Your task to perform on an android device: Search for razer blade on newegg.com, select the first entry, add it to the cart, then select checkout. Image 0: 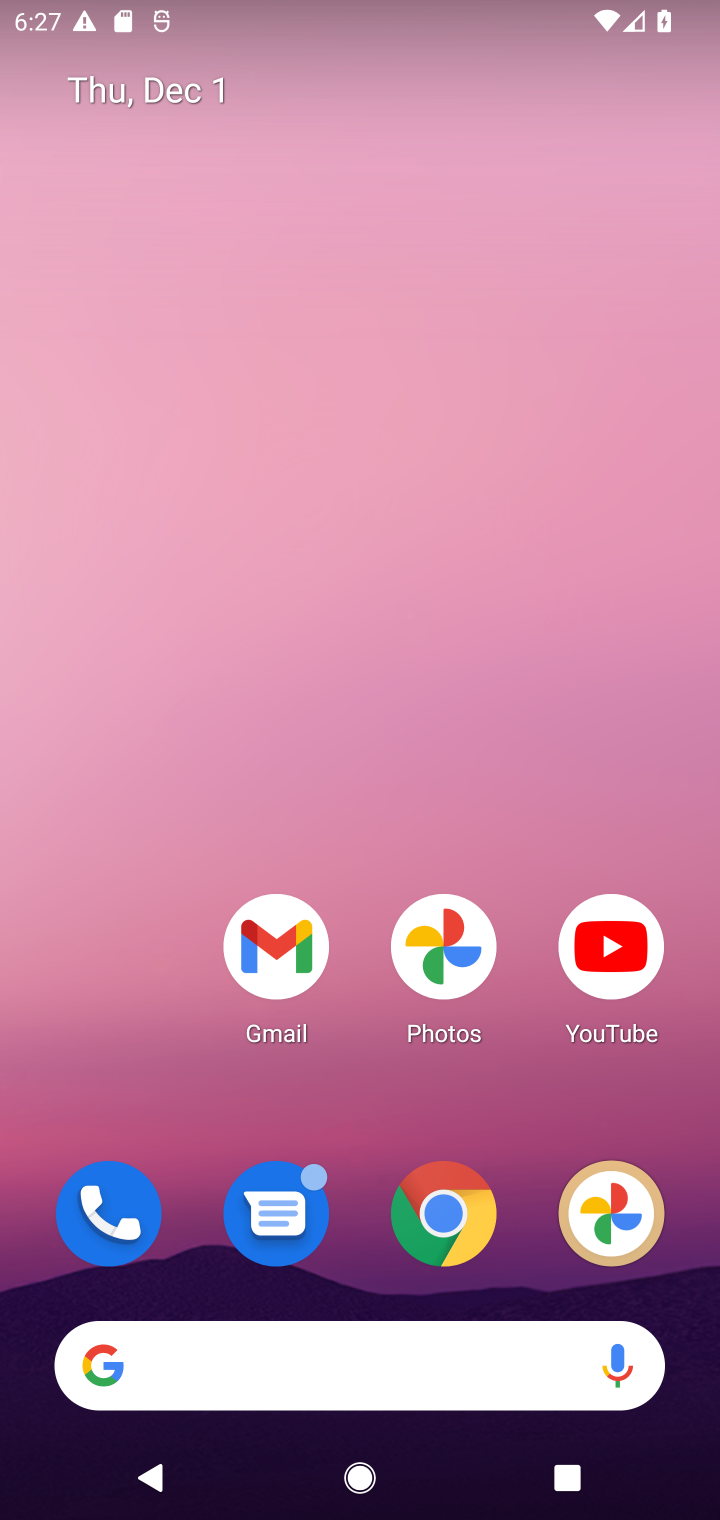
Step 0: click (429, 1347)
Your task to perform on an android device: Search for razer blade on newegg.com, select the first entry, add it to the cart, then select checkout. Image 1: 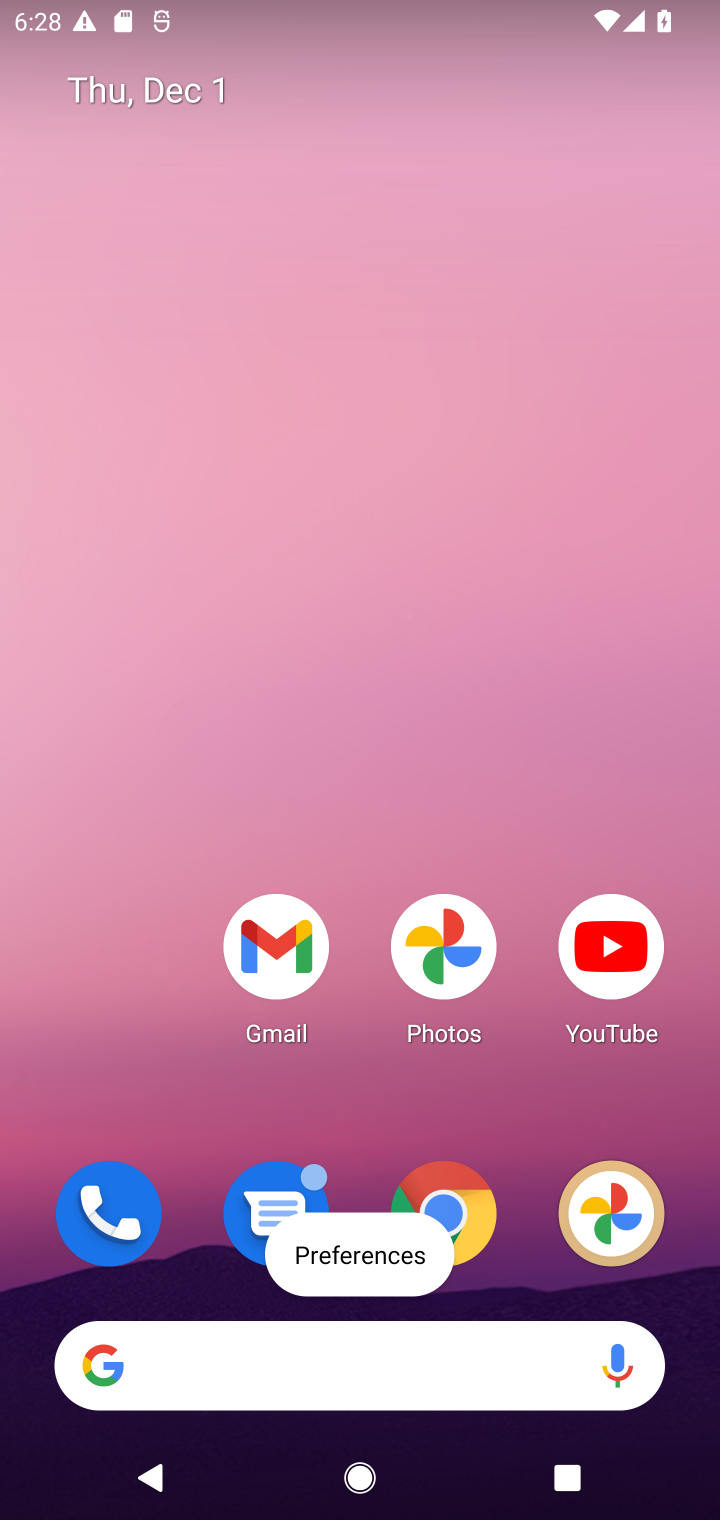
Step 1: click (380, 1341)
Your task to perform on an android device: Search for razer blade on newegg.com, select the first entry, add it to the cart, then select checkout. Image 2: 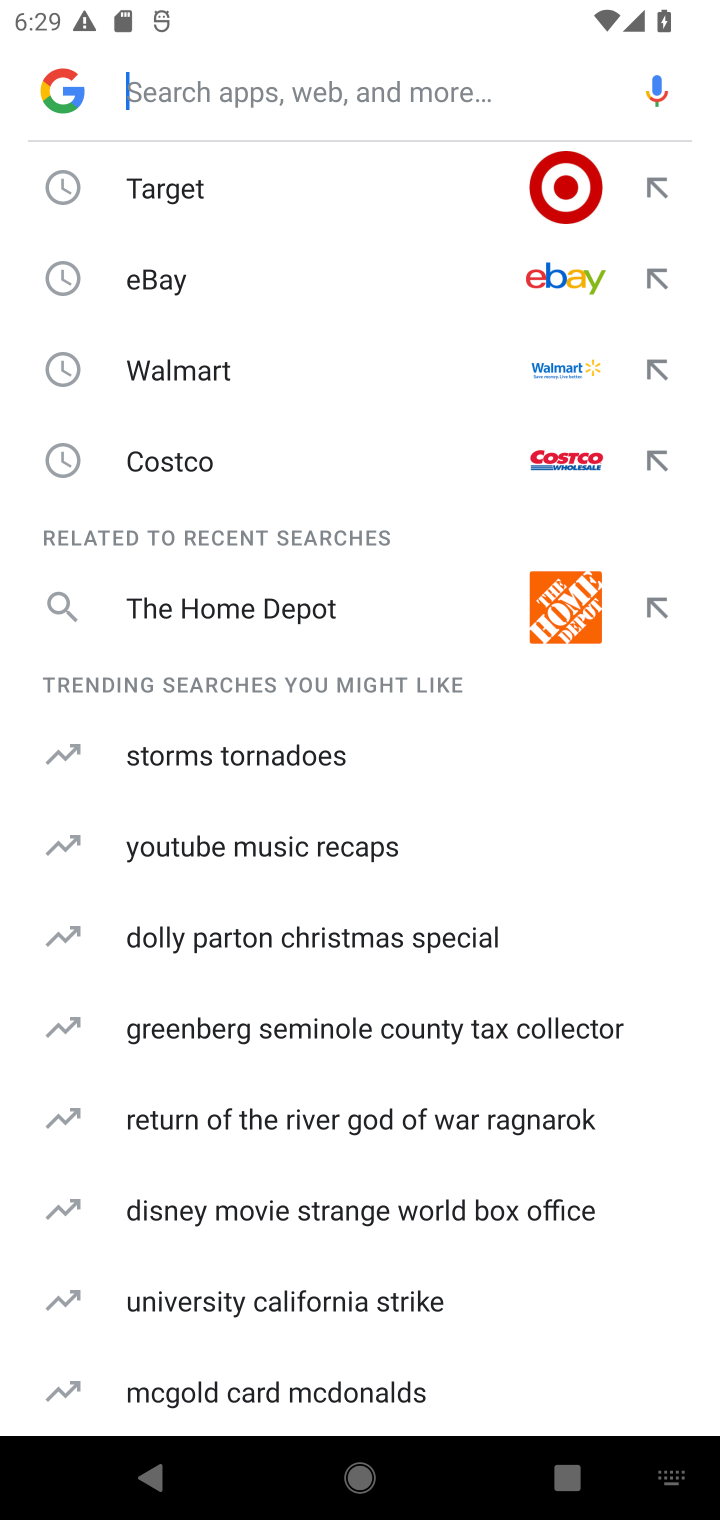
Step 2: type "newegg"
Your task to perform on an android device: Search for razer blade on newegg.com, select the first entry, add it to the cart, then select checkout. Image 3: 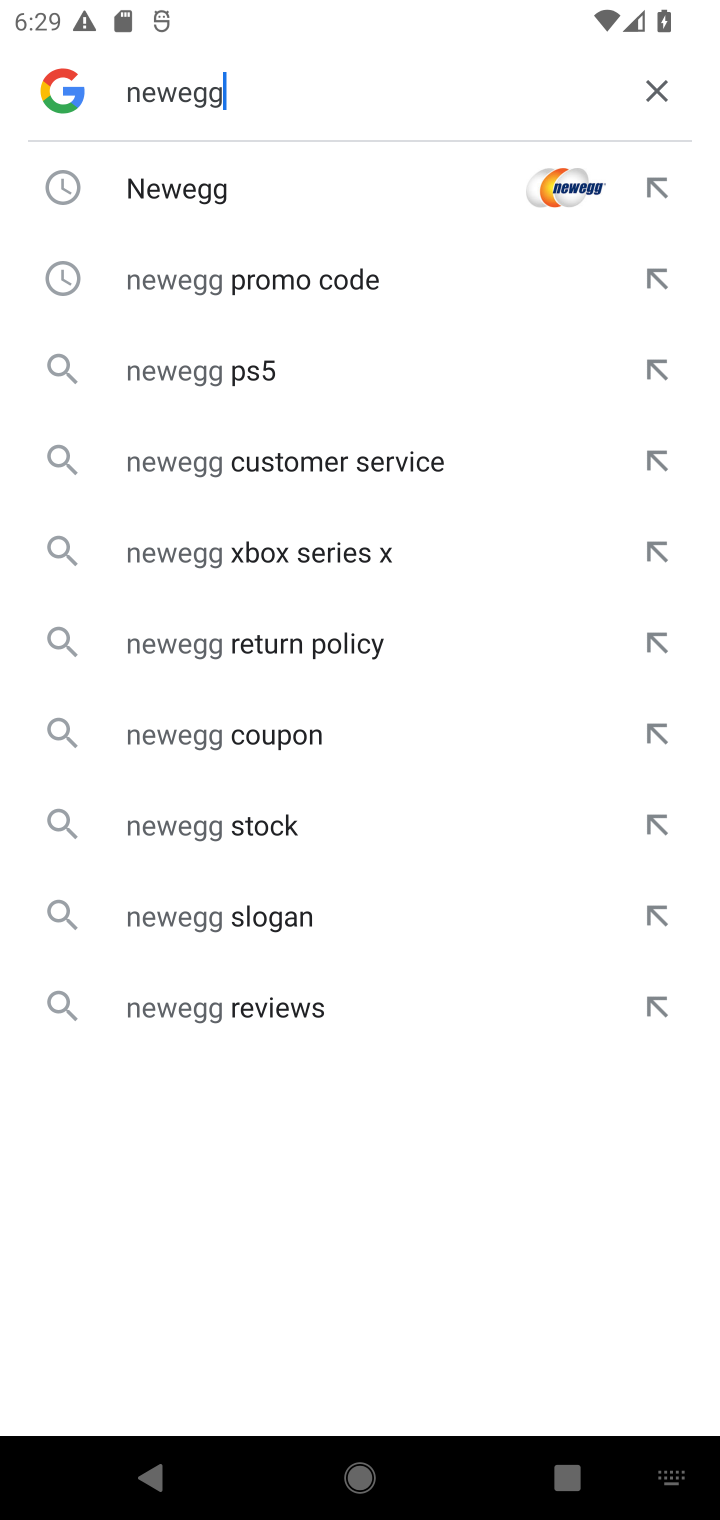
Step 3: click (285, 184)
Your task to perform on an android device: Search for razer blade on newegg.com, select the first entry, add it to the cart, then select checkout. Image 4: 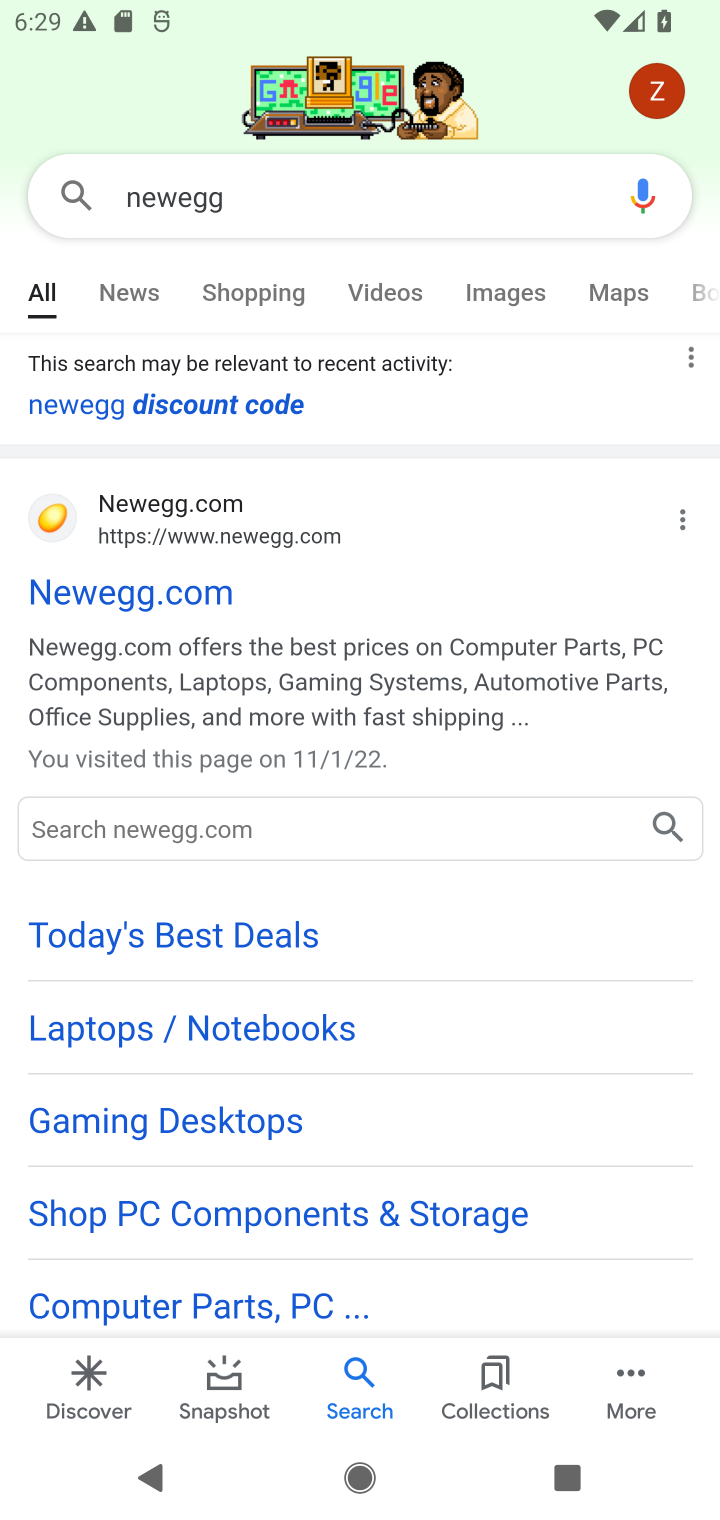
Step 4: click (139, 599)
Your task to perform on an android device: Search for razer blade on newegg.com, select the first entry, add it to the cart, then select checkout. Image 5: 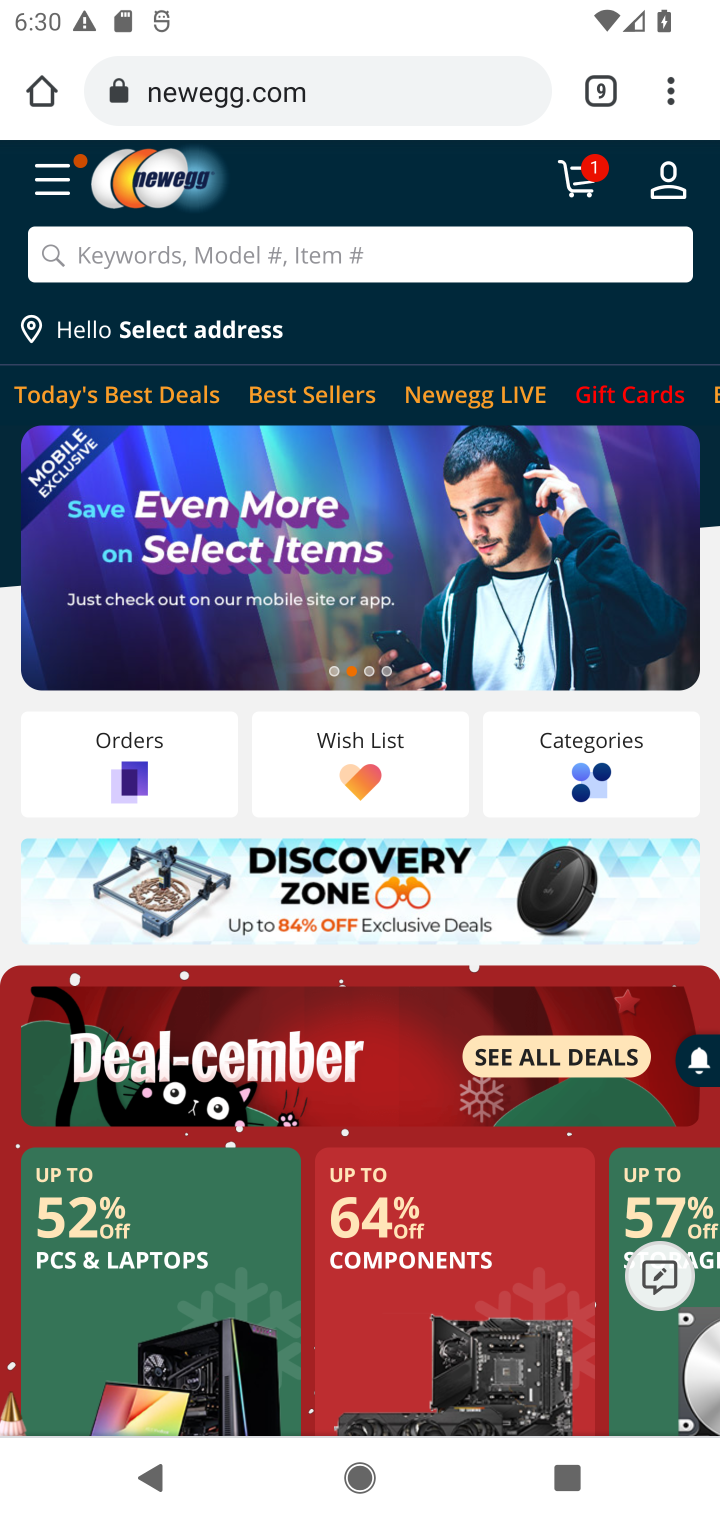
Step 5: click (207, 253)
Your task to perform on an android device: Search for razer blade on newegg.com, select the first entry, add it to the cart, then select checkout. Image 6: 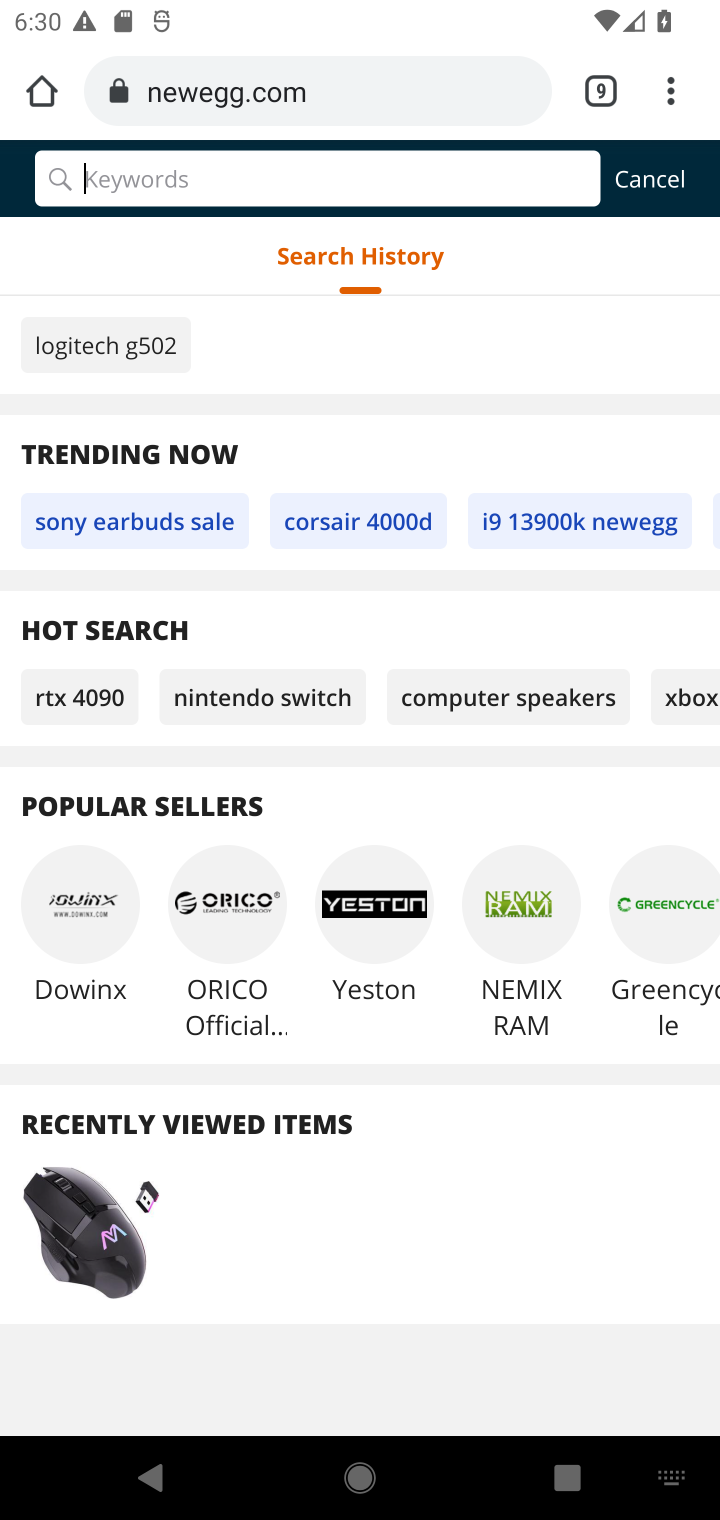
Step 6: type "razer blade"
Your task to perform on an android device: Search for razer blade on newegg.com, select the first entry, add it to the cart, then select checkout. Image 7: 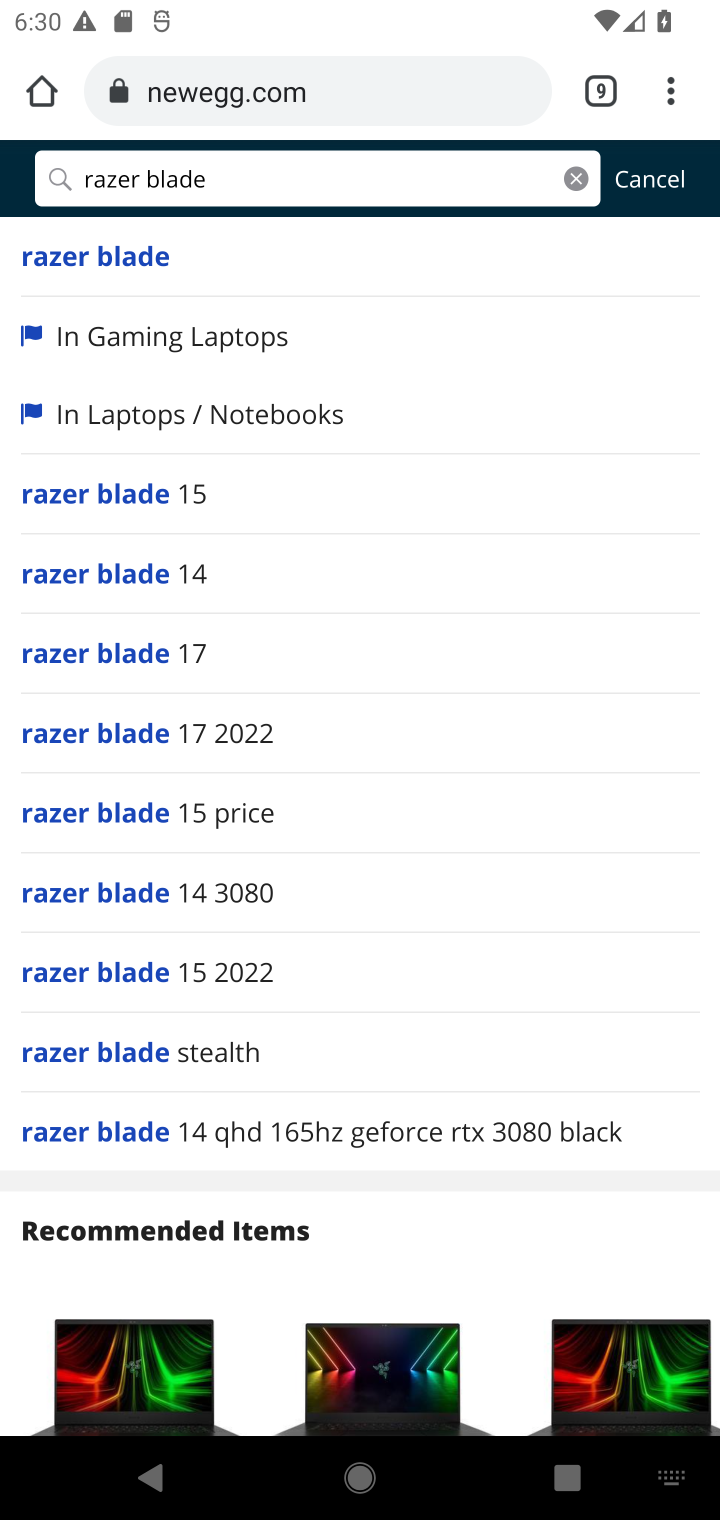
Step 7: click (57, 243)
Your task to perform on an android device: Search for razer blade on newegg.com, select the first entry, add it to the cart, then select checkout. Image 8: 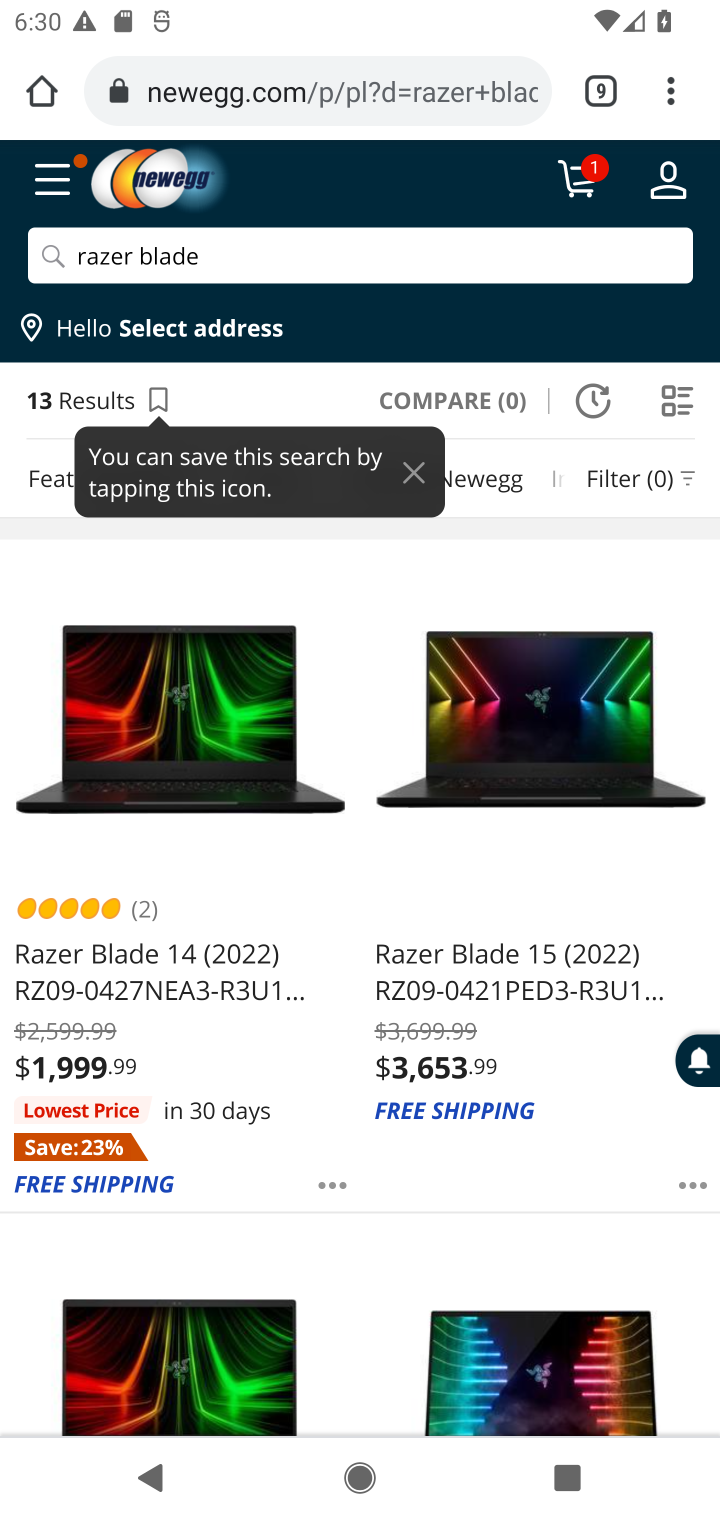
Step 8: click (220, 997)
Your task to perform on an android device: Search for razer blade on newegg.com, select the first entry, add it to the cart, then select checkout. Image 9: 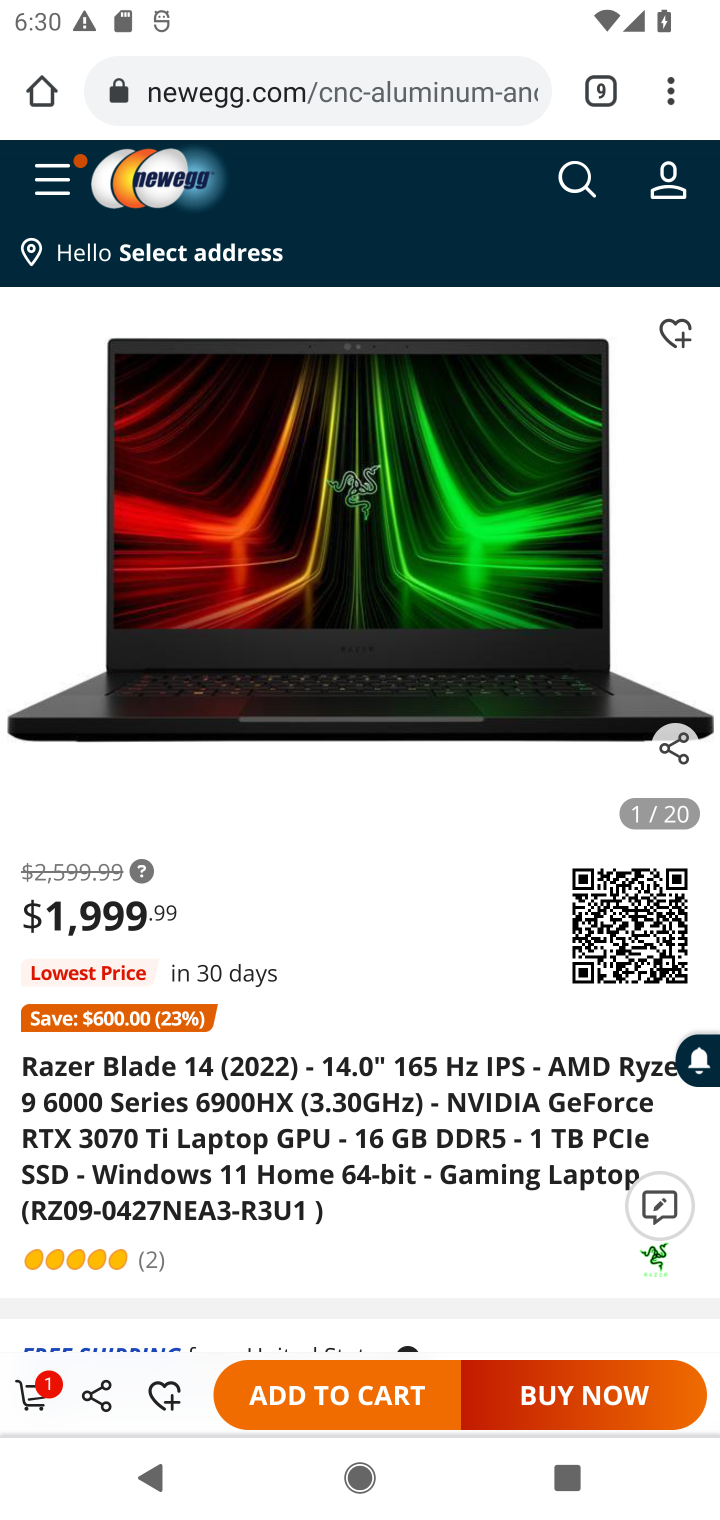
Step 9: click (271, 1421)
Your task to perform on an android device: Search for razer blade on newegg.com, select the first entry, add it to the cart, then select checkout. Image 10: 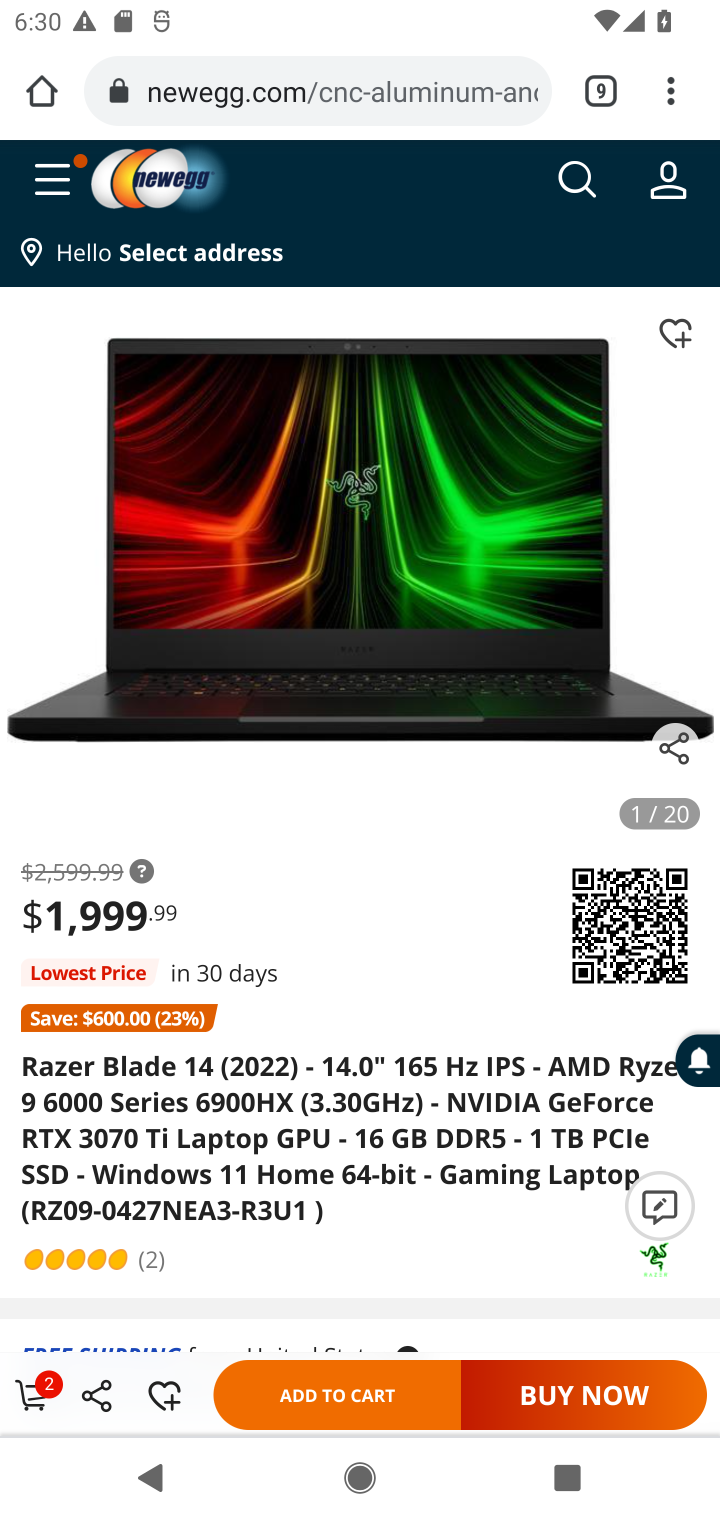
Step 10: click (297, 1396)
Your task to perform on an android device: Search for razer blade on newegg.com, select the first entry, add it to the cart, then select checkout. Image 11: 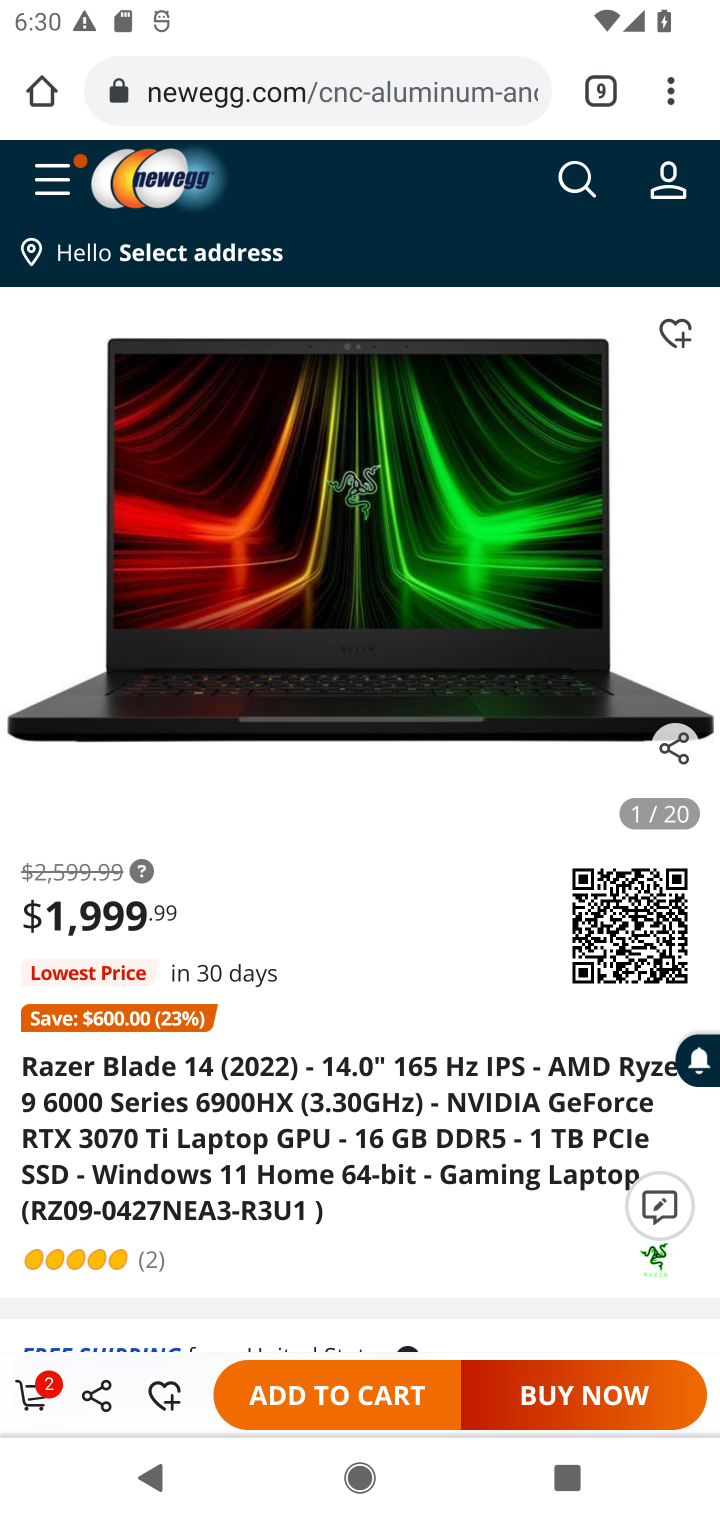
Step 11: task complete